Your task to perform on an android device: Open Maps and search for coffee Image 0: 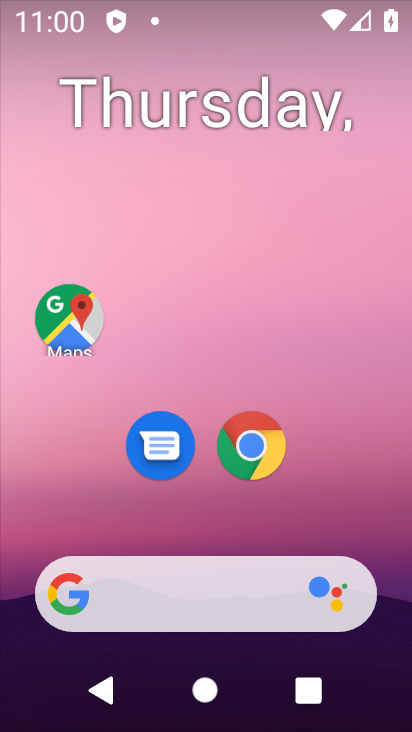
Step 0: drag from (395, 617) to (220, 13)
Your task to perform on an android device: Open Maps and search for coffee Image 1: 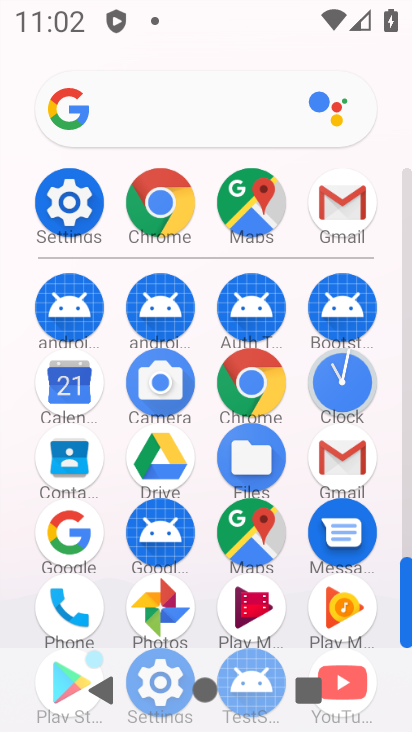
Step 1: click (259, 531)
Your task to perform on an android device: Open Maps and search for coffee Image 2: 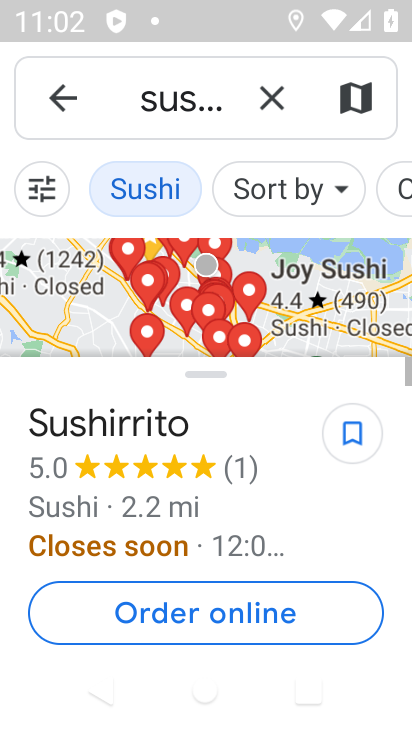
Step 2: click (274, 92)
Your task to perform on an android device: Open Maps and search for coffee Image 3: 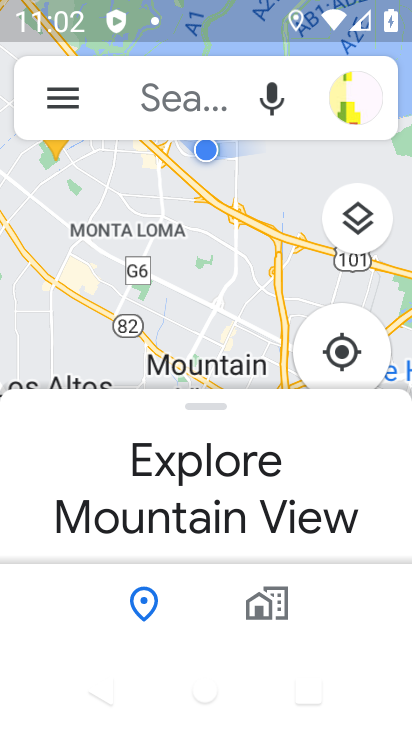
Step 3: click (157, 107)
Your task to perform on an android device: Open Maps and search for coffee Image 4: 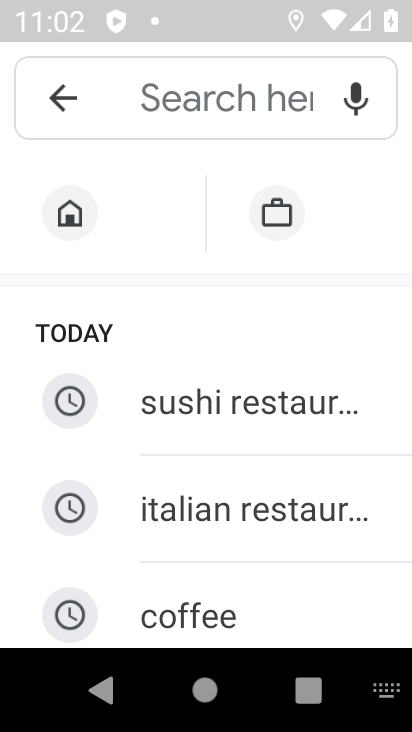
Step 4: click (199, 615)
Your task to perform on an android device: Open Maps and search for coffee Image 5: 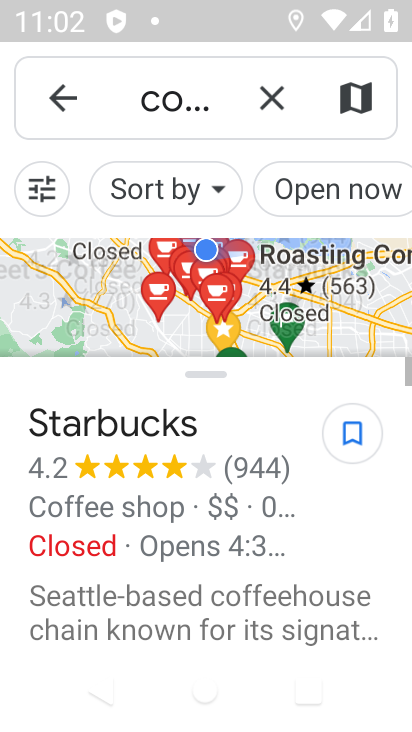
Step 5: task complete